Your task to perform on an android device: delete a single message in the gmail app Image 0: 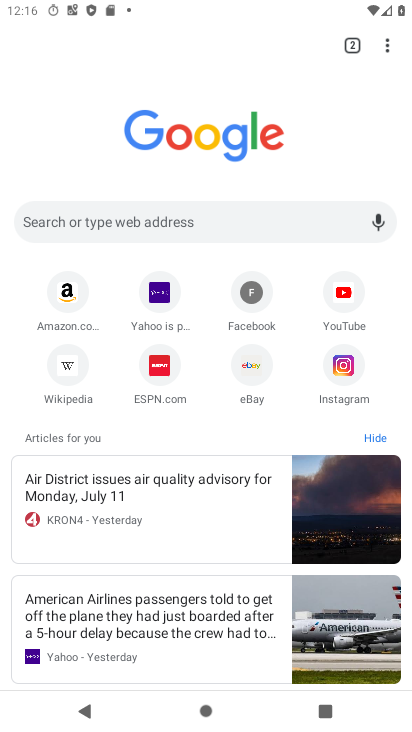
Step 0: press home button
Your task to perform on an android device: delete a single message in the gmail app Image 1: 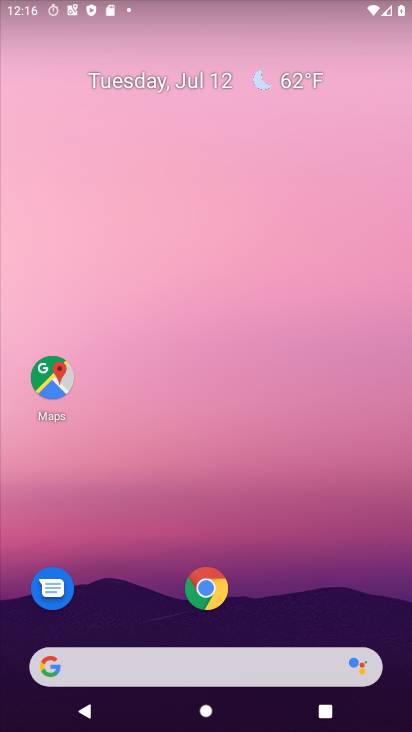
Step 1: drag from (175, 637) to (264, 21)
Your task to perform on an android device: delete a single message in the gmail app Image 2: 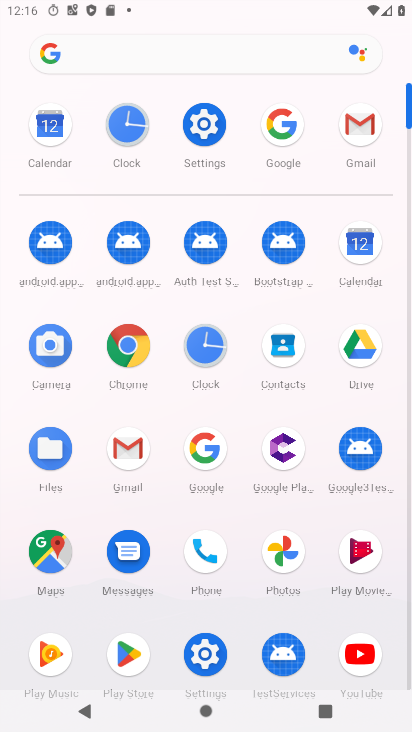
Step 2: click (361, 136)
Your task to perform on an android device: delete a single message in the gmail app Image 3: 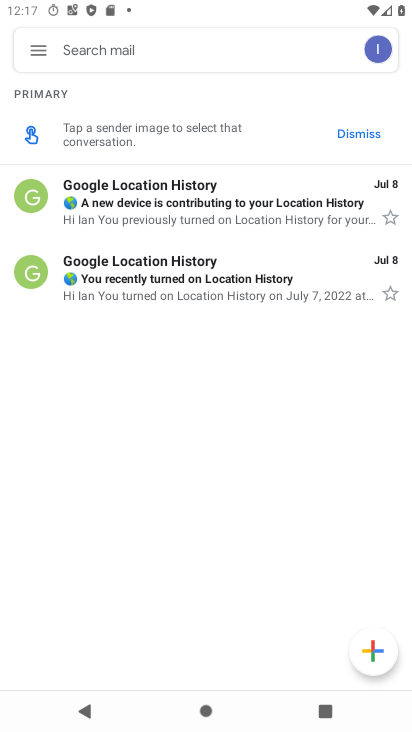
Step 3: click (318, 212)
Your task to perform on an android device: delete a single message in the gmail app Image 4: 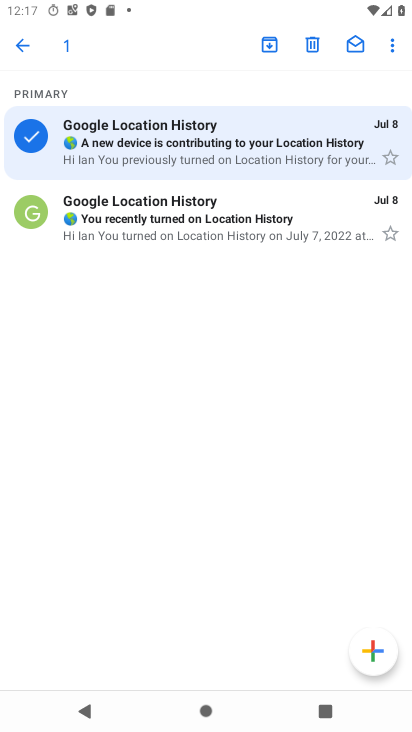
Step 4: click (314, 46)
Your task to perform on an android device: delete a single message in the gmail app Image 5: 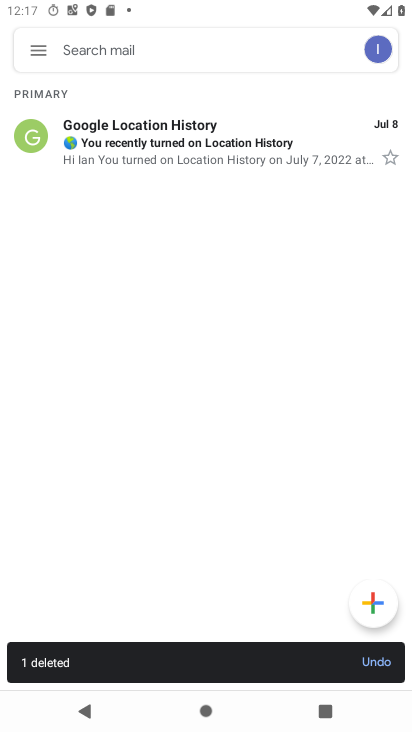
Step 5: task complete